Your task to perform on an android device: Play the last video I watched on Youtube Image 0: 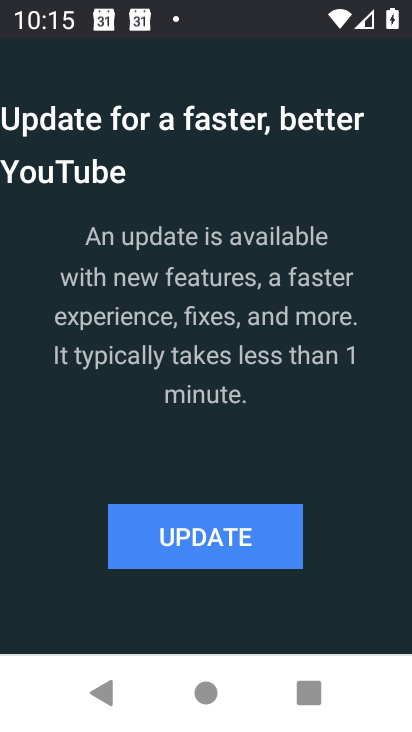
Step 0: click (218, 534)
Your task to perform on an android device: Play the last video I watched on Youtube Image 1: 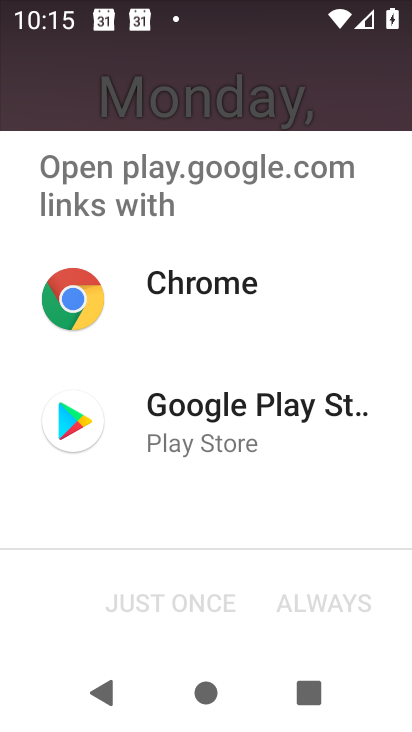
Step 1: click (207, 410)
Your task to perform on an android device: Play the last video I watched on Youtube Image 2: 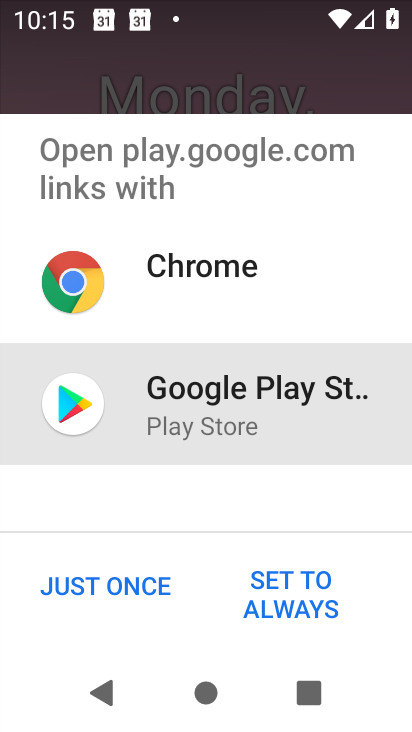
Step 2: click (207, 410)
Your task to perform on an android device: Play the last video I watched on Youtube Image 3: 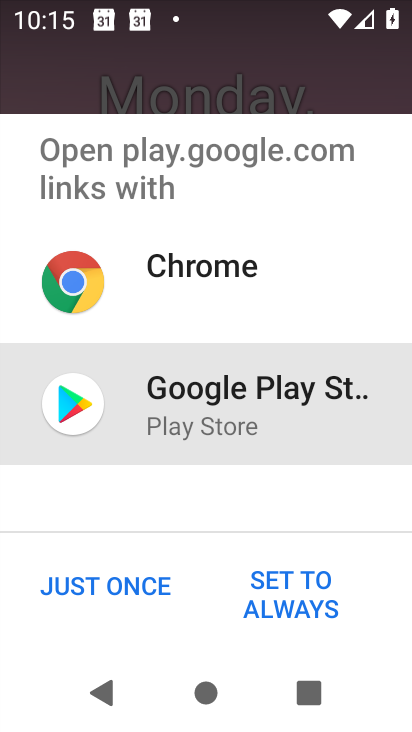
Step 3: click (207, 410)
Your task to perform on an android device: Play the last video I watched on Youtube Image 4: 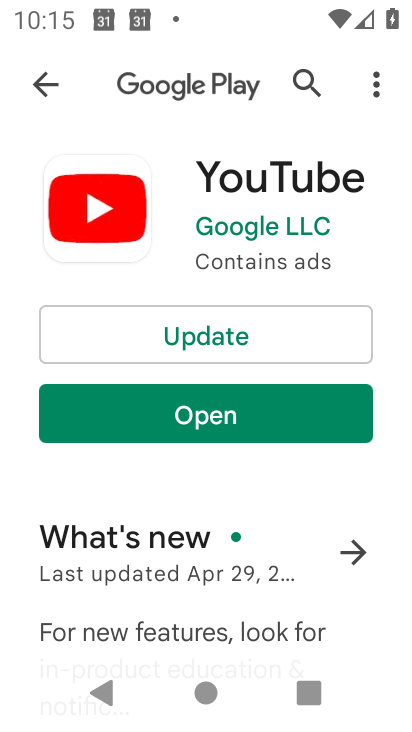
Step 4: click (205, 338)
Your task to perform on an android device: Play the last video I watched on Youtube Image 5: 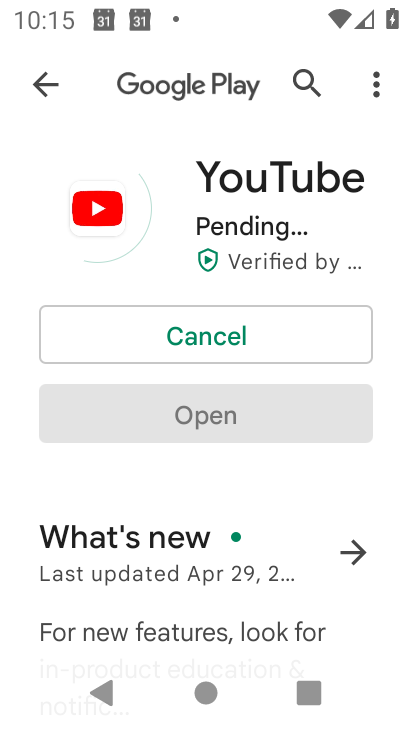
Step 5: click (205, 338)
Your task to perform on an android device: Play the last video I watched on Youtube Image 6: 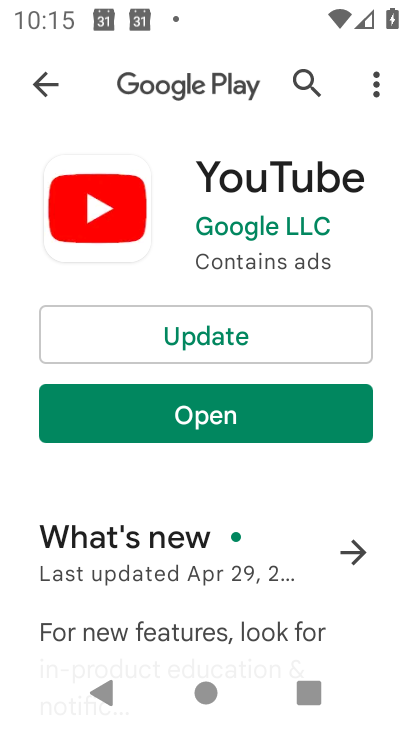
Step 6: click (205, 338)
Your task to perform on an android device: Play the last video I watched on Youtube Image 7: 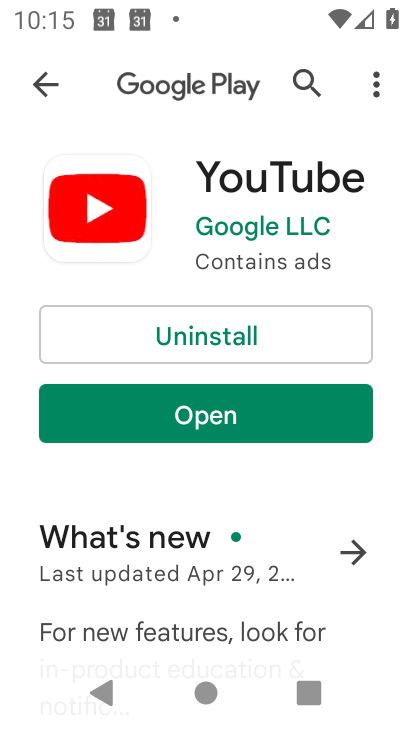
Step 7: click (257, 415)
Your task to perform on an android device: Play the last video I watched on Youtube Image 8: 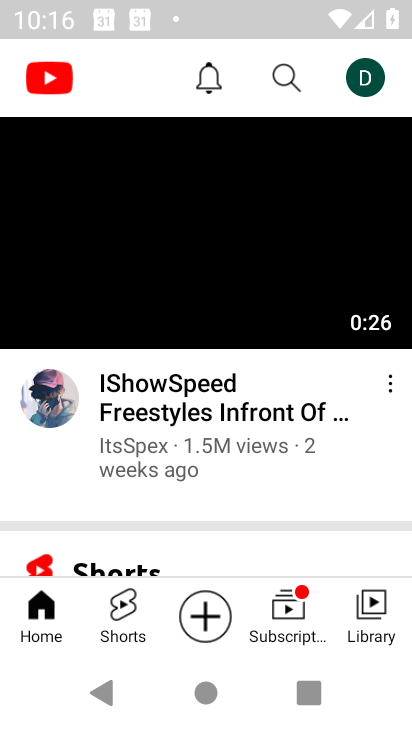
Step 8: click (206, 302)
Your task to perform on an android device: Play the last video I watched on Youtube Image 9: 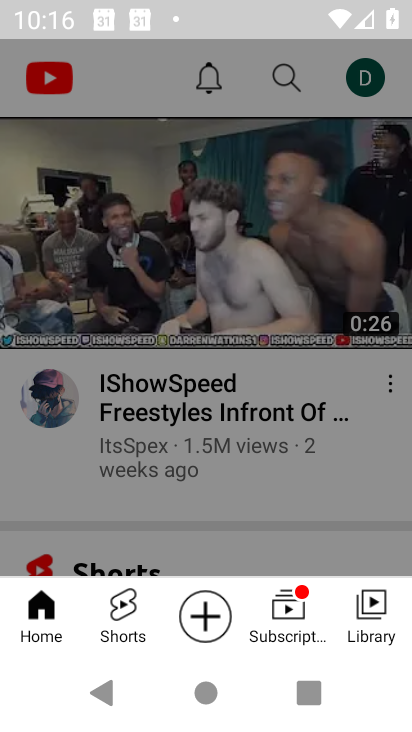
Step 9: click (244, 264)
Your task to perform on an android device: Play the last video I watched on Youtube Image 10: 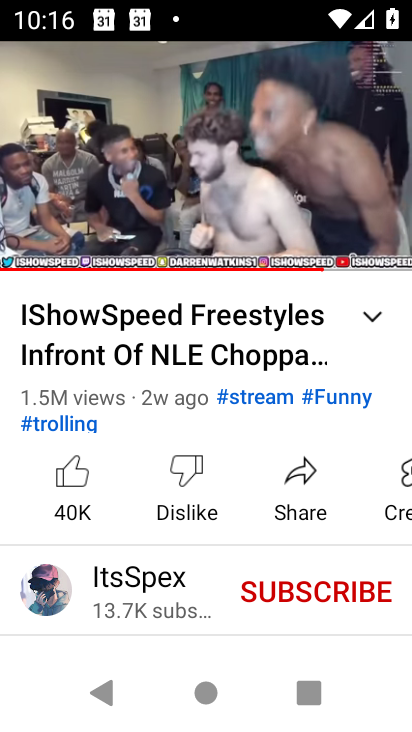
Step 10: task complete